Your task to perform on an android device: Open Chrome and go to settings Image 0: 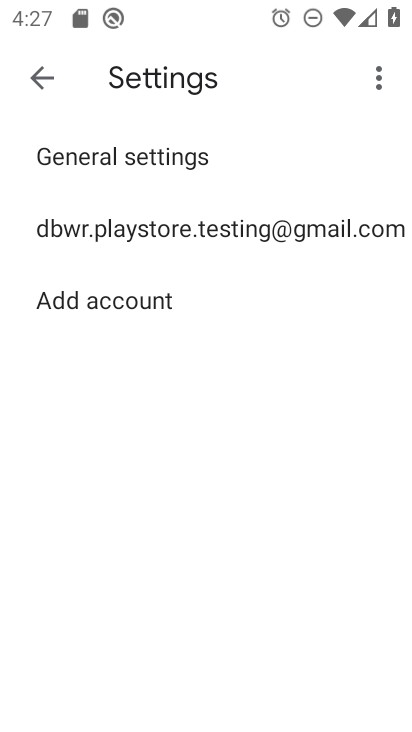
Step 0: press home button
Your task to perform on an android device: Open Chrome and go to settings Image 1: 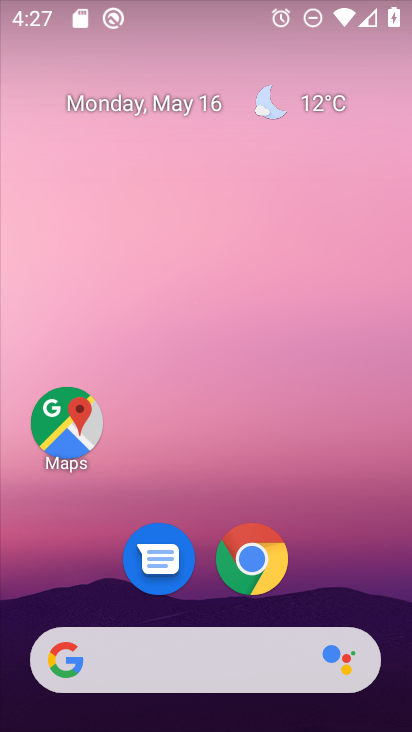
Step 1: click (256, 583)
Your task to perform on an android device: Open Chrome and go to settings Image 2: 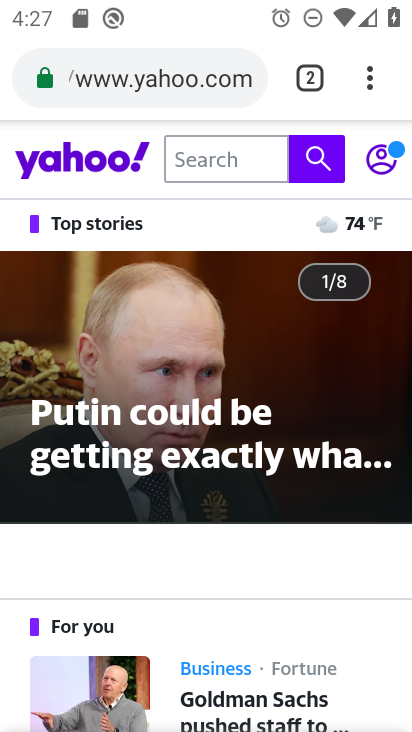
Step 2: click (377, 59)
Your task to perform on an android device: Open Chrome and go to settings Image 3: 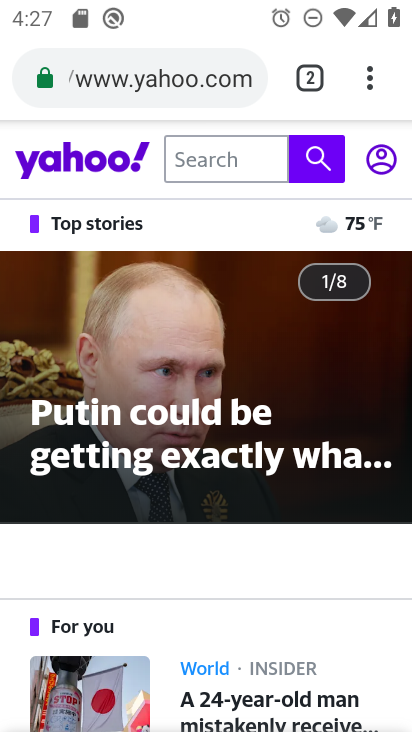
Step 3: click (362, 88)
Your task to perform on an android device: Open Chrome and go to settings Image 4: 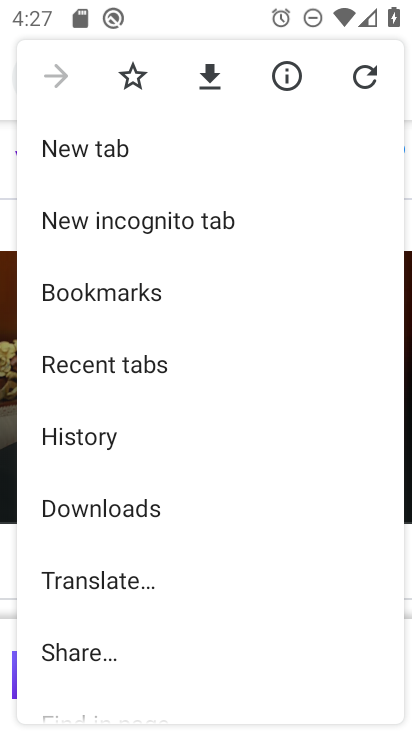
Step 4: drag from (282, 603) to (298, 275)
Your task to perform on an android device: Open Chrome and go to settings Image 5: 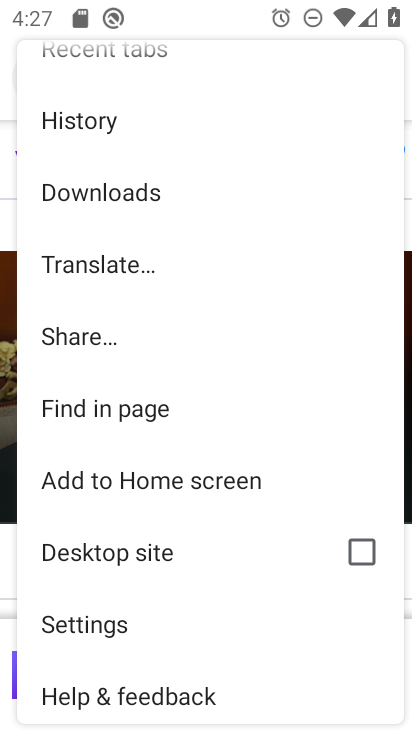
Step 5: click (151, 640)
Your task to perform on an android device: Open Chrome and go to settings Image 6: 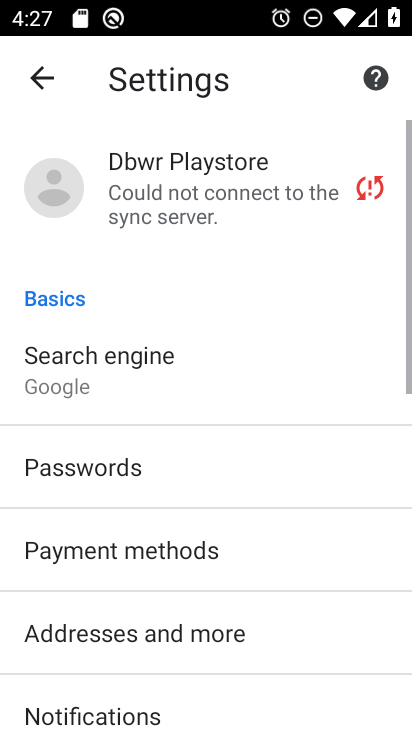
Step 6: task complete